Your task to perform on an android device: change timer sound Image 0: 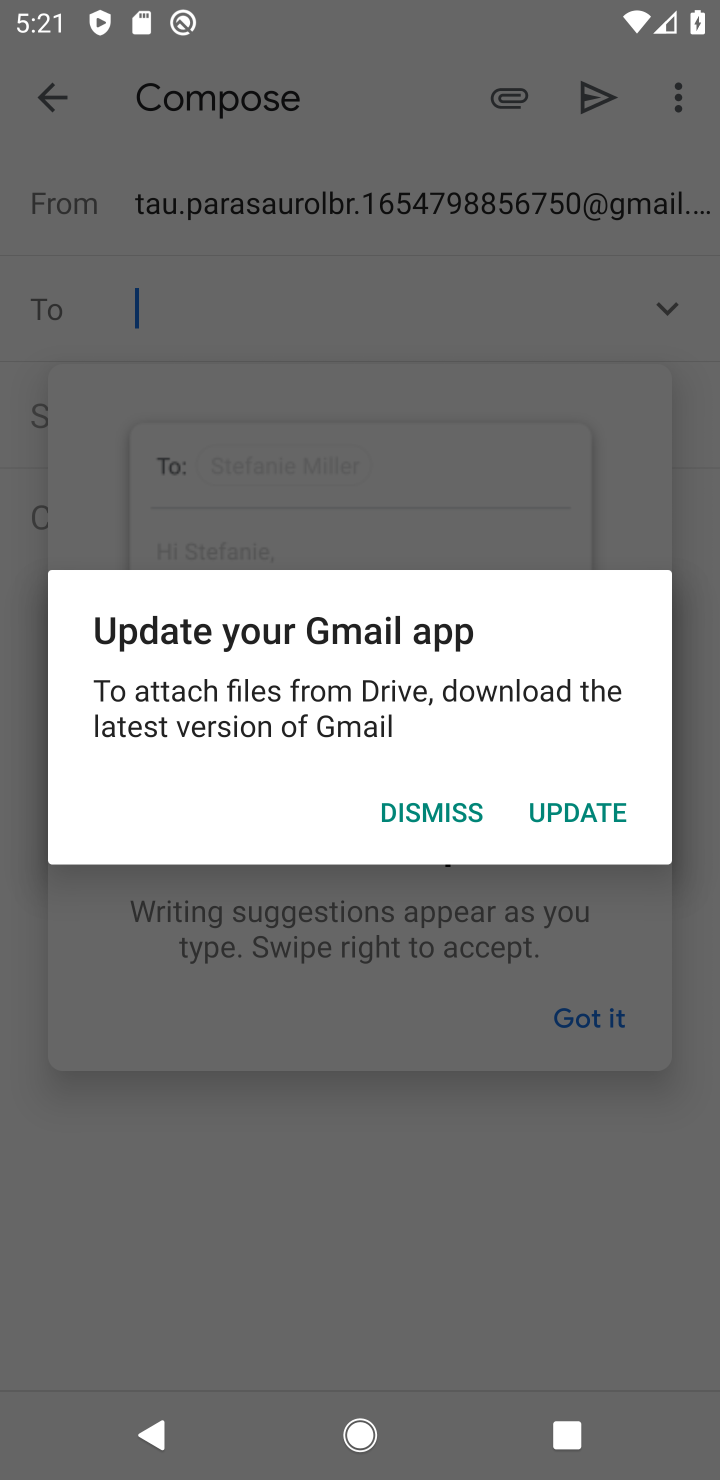
Step 0: press home button
Your task to perform on an android device: change timer sound Image 1: 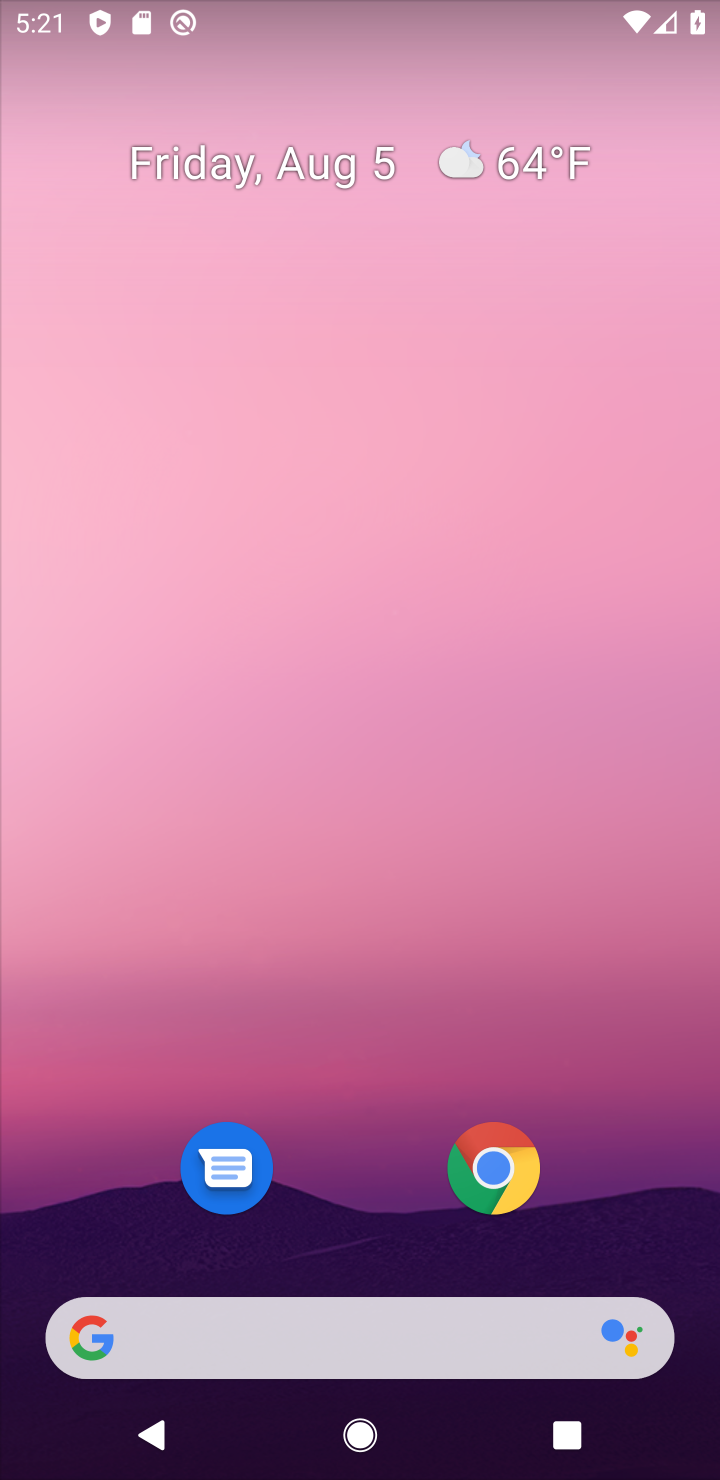
Step 1: drag from (335, 1065) to (319, 161)
Your task to perform on an android device: change timer sound Image 2: 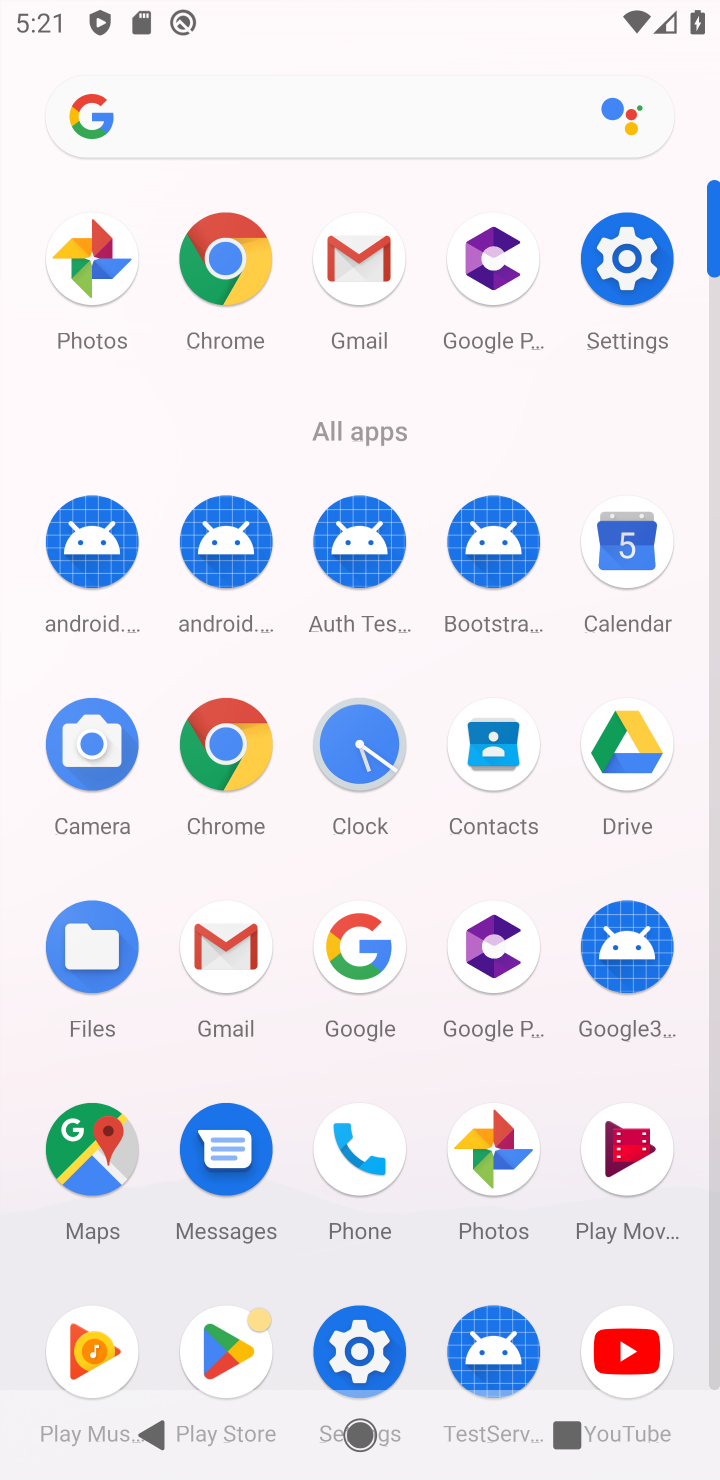
Step 2: click (343, 742)
Your task to perform on an android device: change timer sound Image 3: 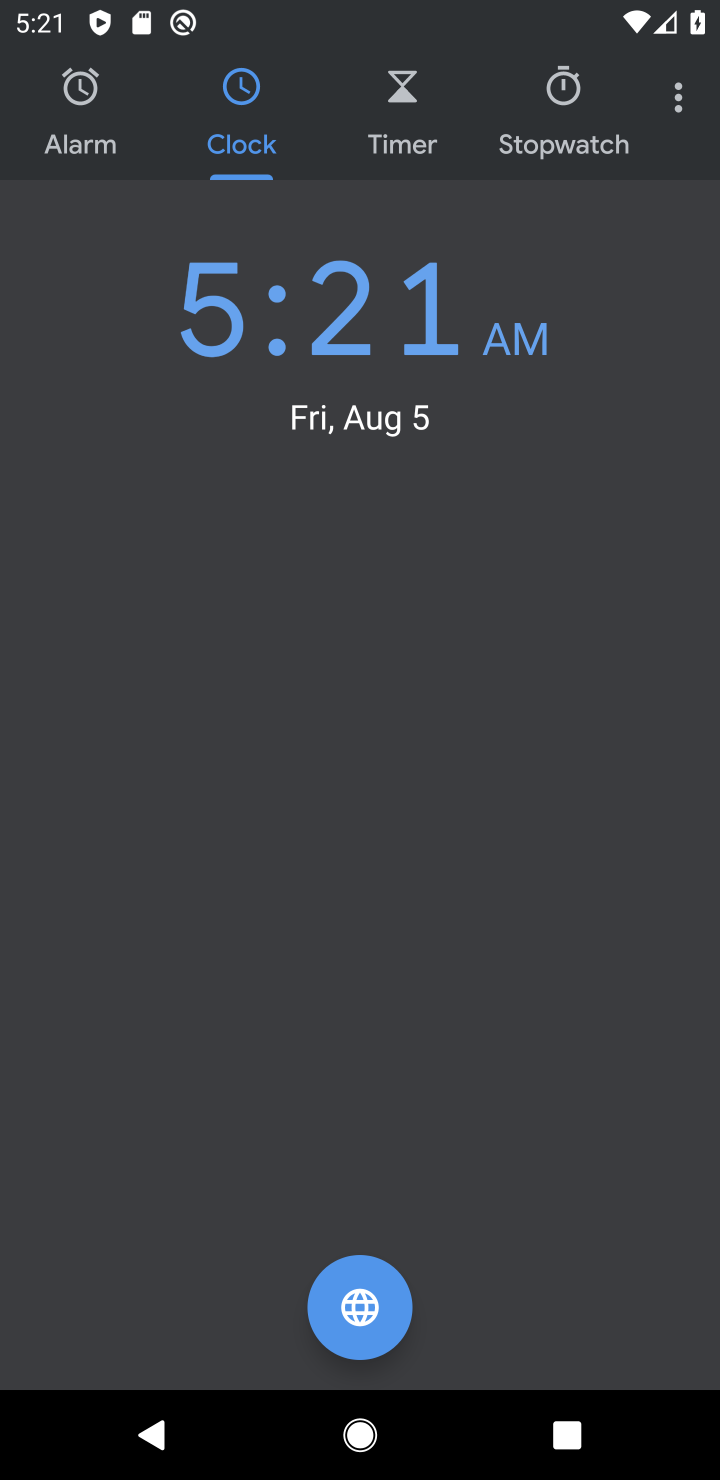
Step 3: click (668, 109)
Your task to perform on an android device: change timer sound Image 4: 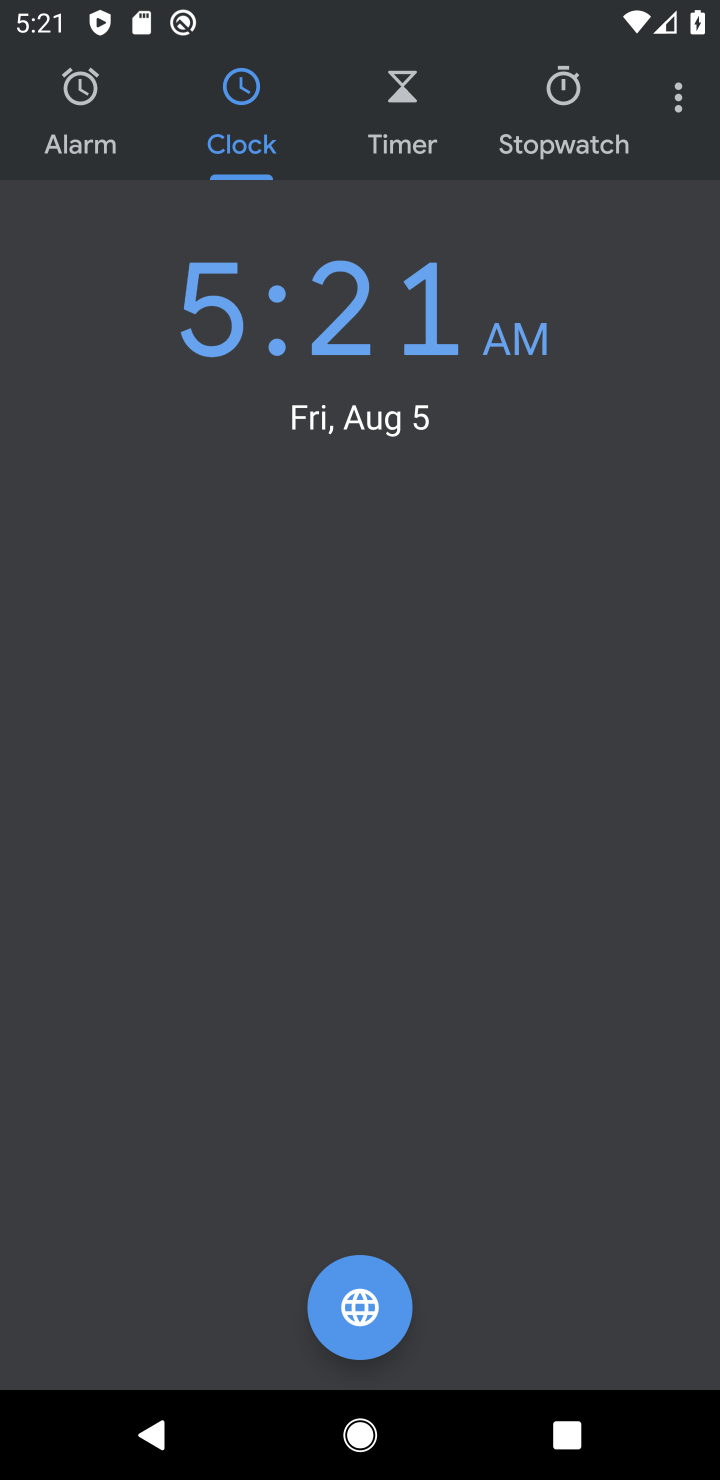
Step 4: click (668, 106)
Your task to perform on an android device: change timer sound Image 5: 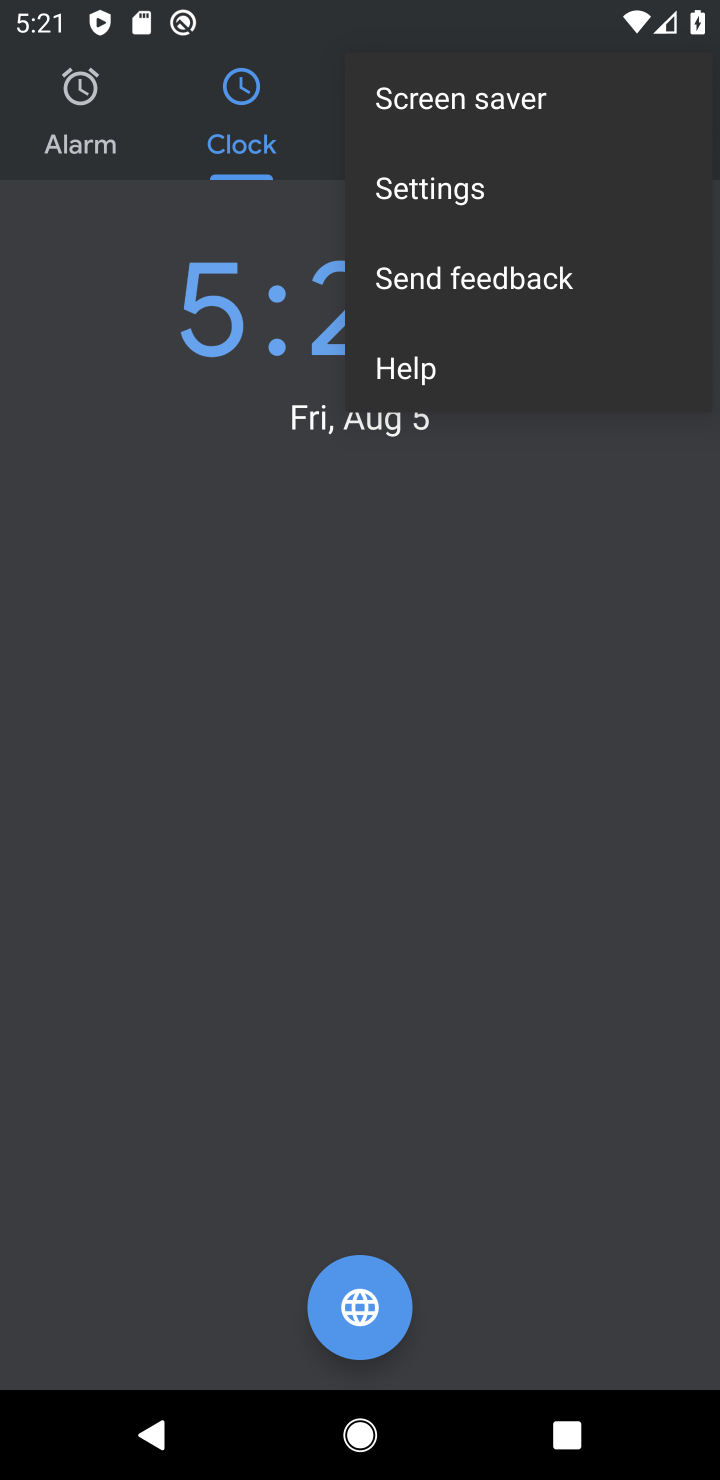
Step 5: click (428, 178)
Your task to perform on an android device: change timer sound Image 6: 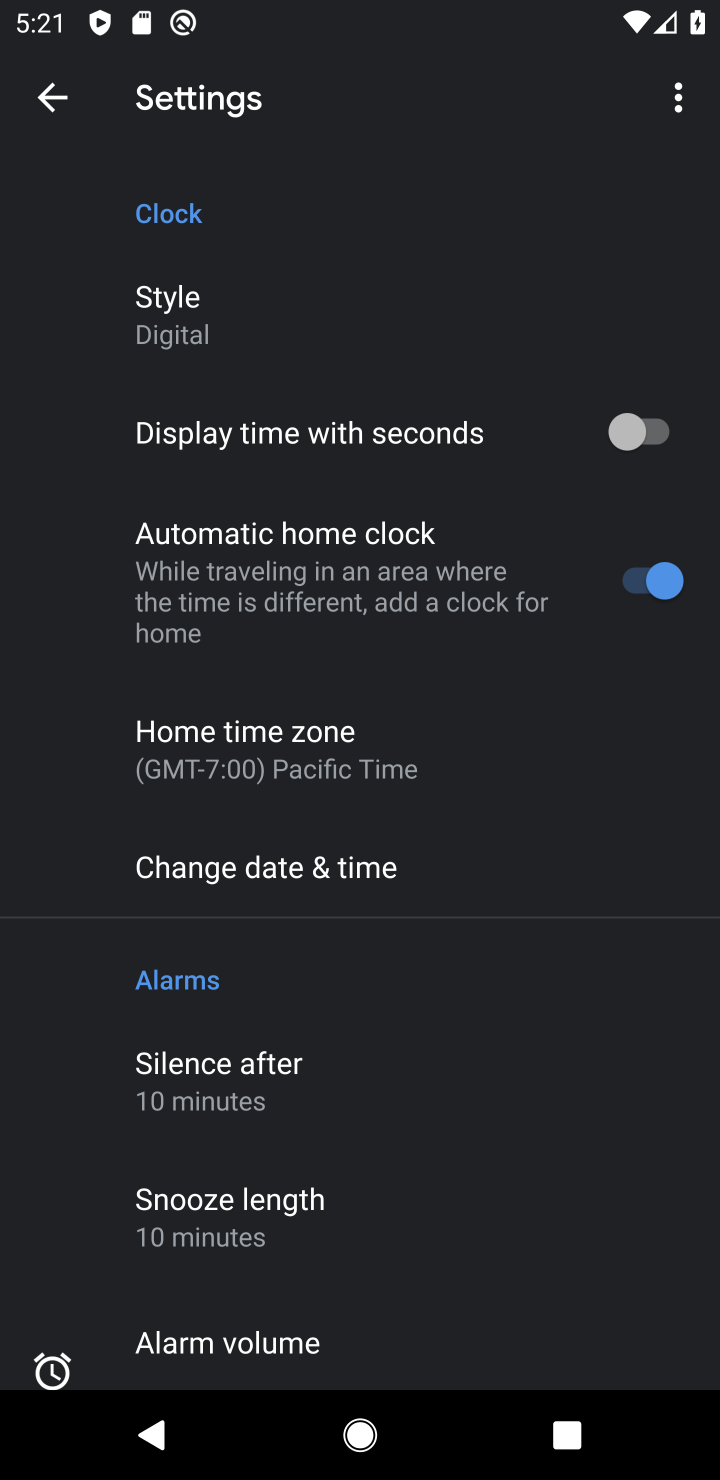
Step 6: drag from (593, 1269) to (588, 169)
Your task to perform on an android device: change timer sound Image 7: 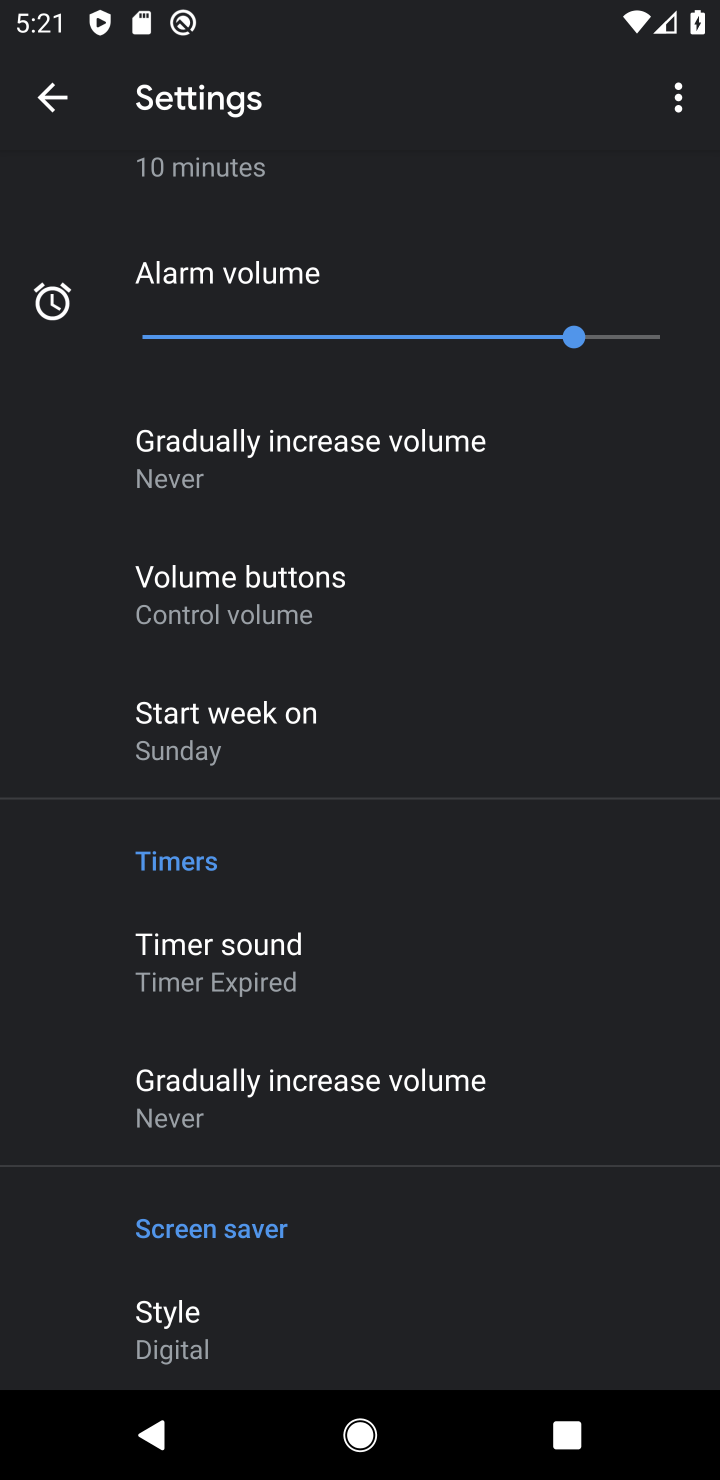
Step 7: click (214, 940)
Your task to perform on an android device: change timer sound Image 8: 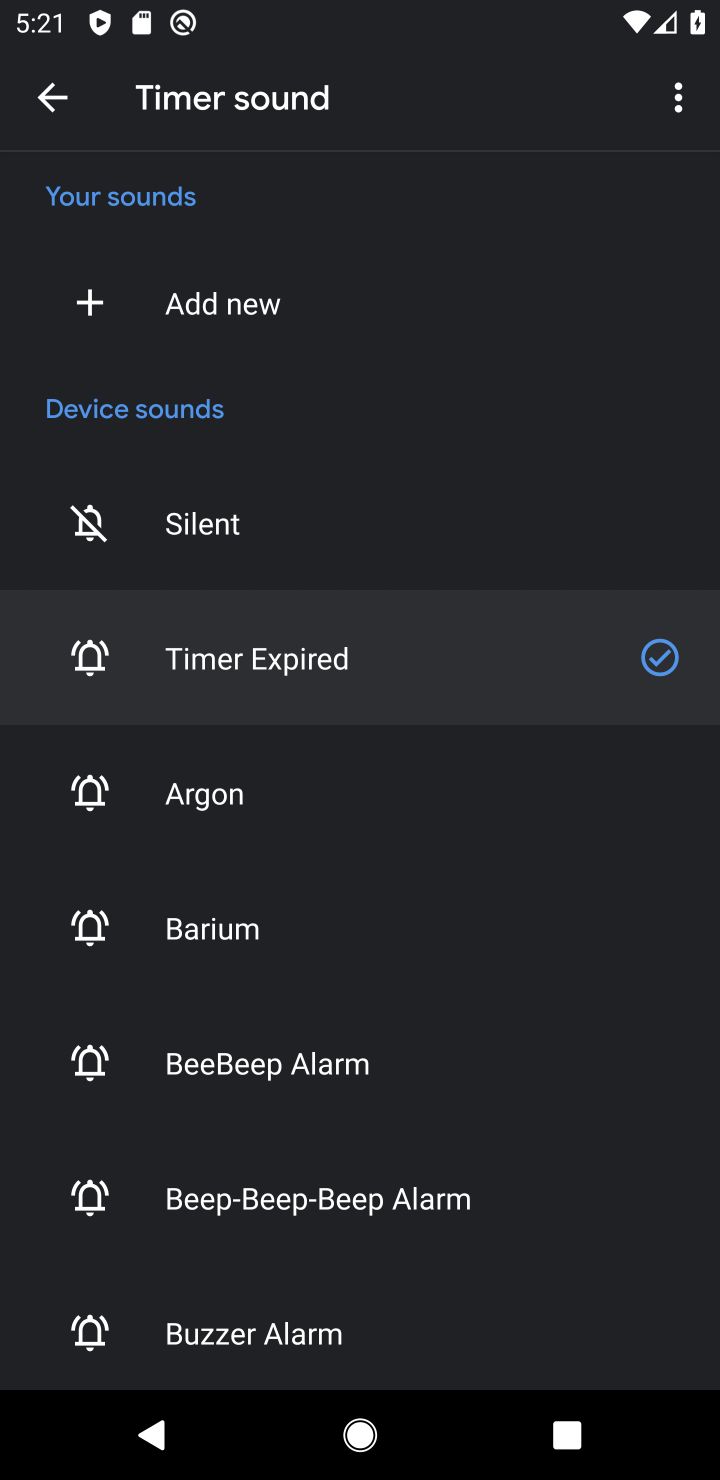
Step 8: click (192, 805)
Your task to perform on an android device: change timer sound Image 9: 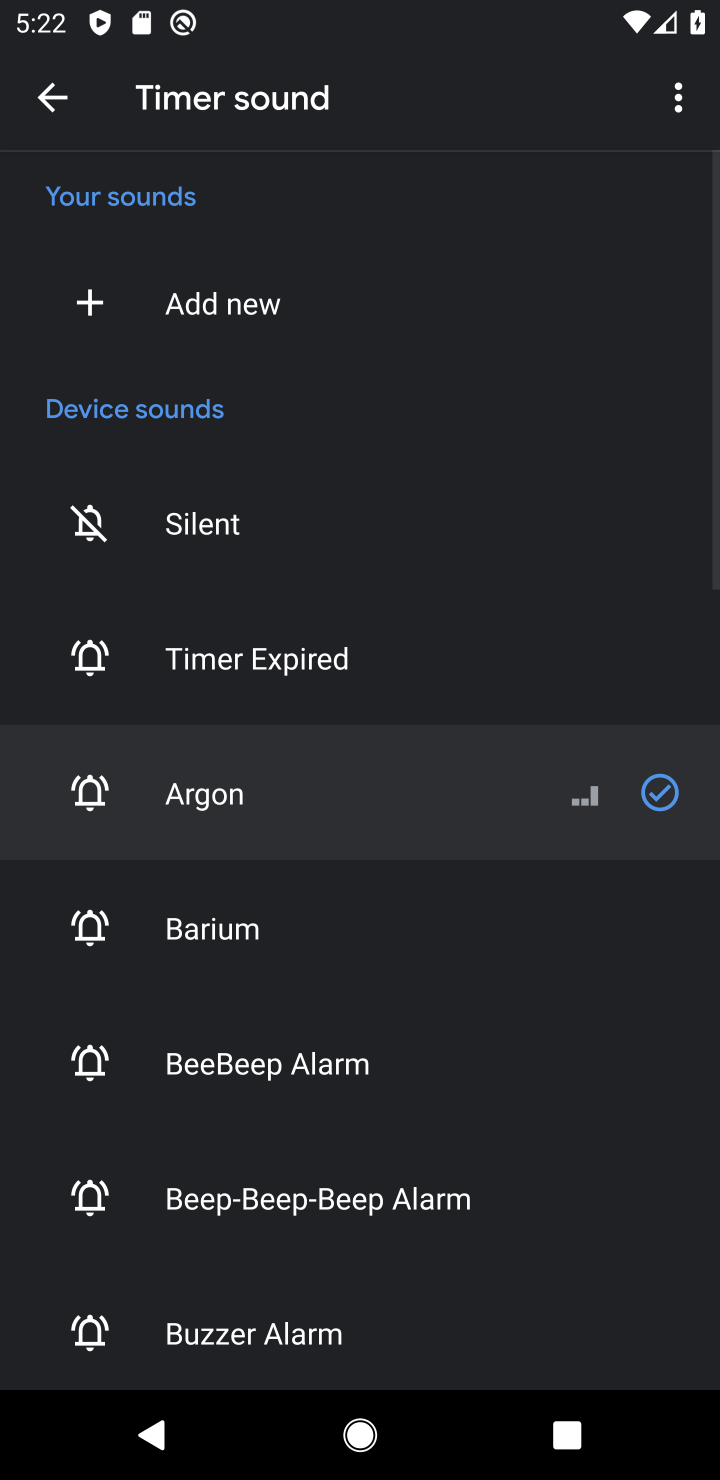
Step 9: task complete